Your task to perform on an android device: uninstall "Google Pay: Save, Pay, Manage" Image 0: 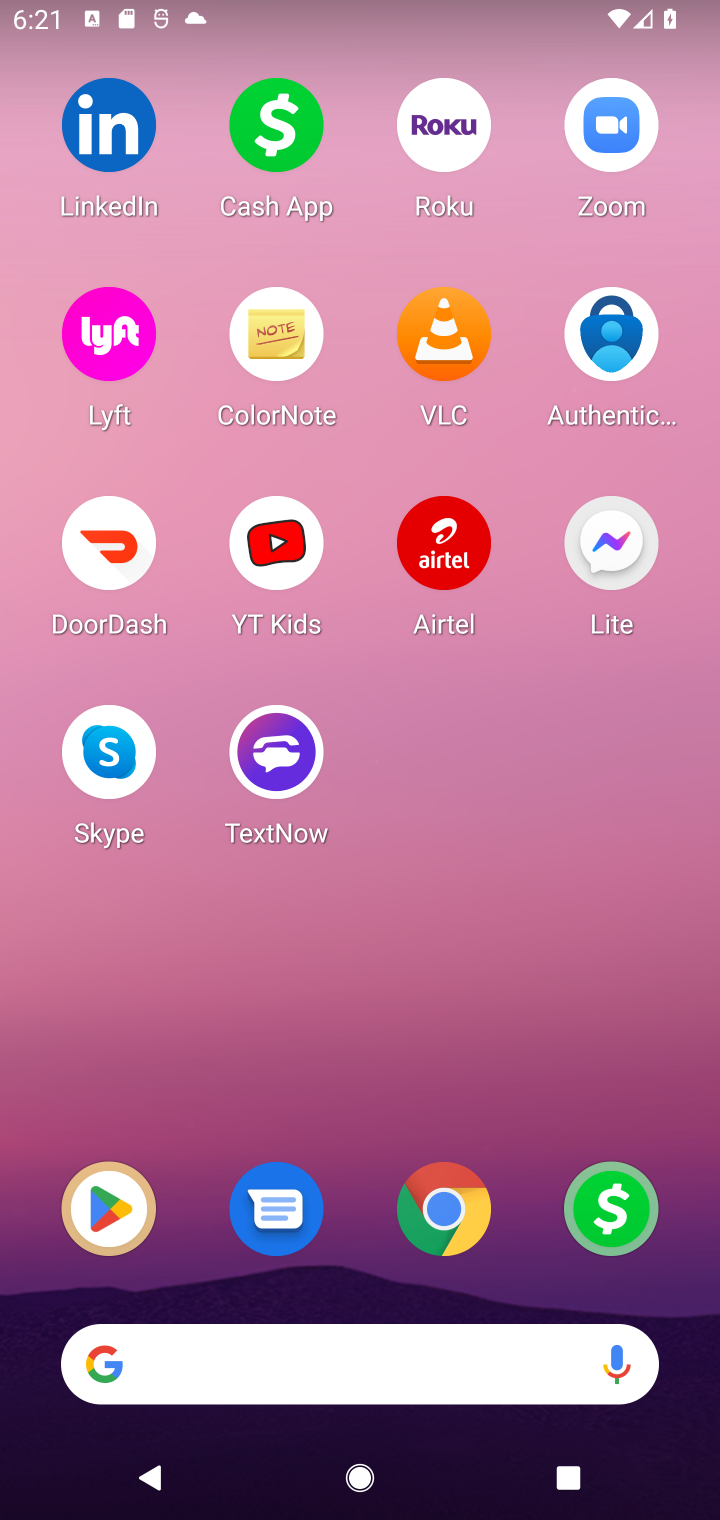
Step 0: click (104, 1188)
Your task to perform on an android device: uninstall "Google Pay: Save, Pay, Manage" Image 1: 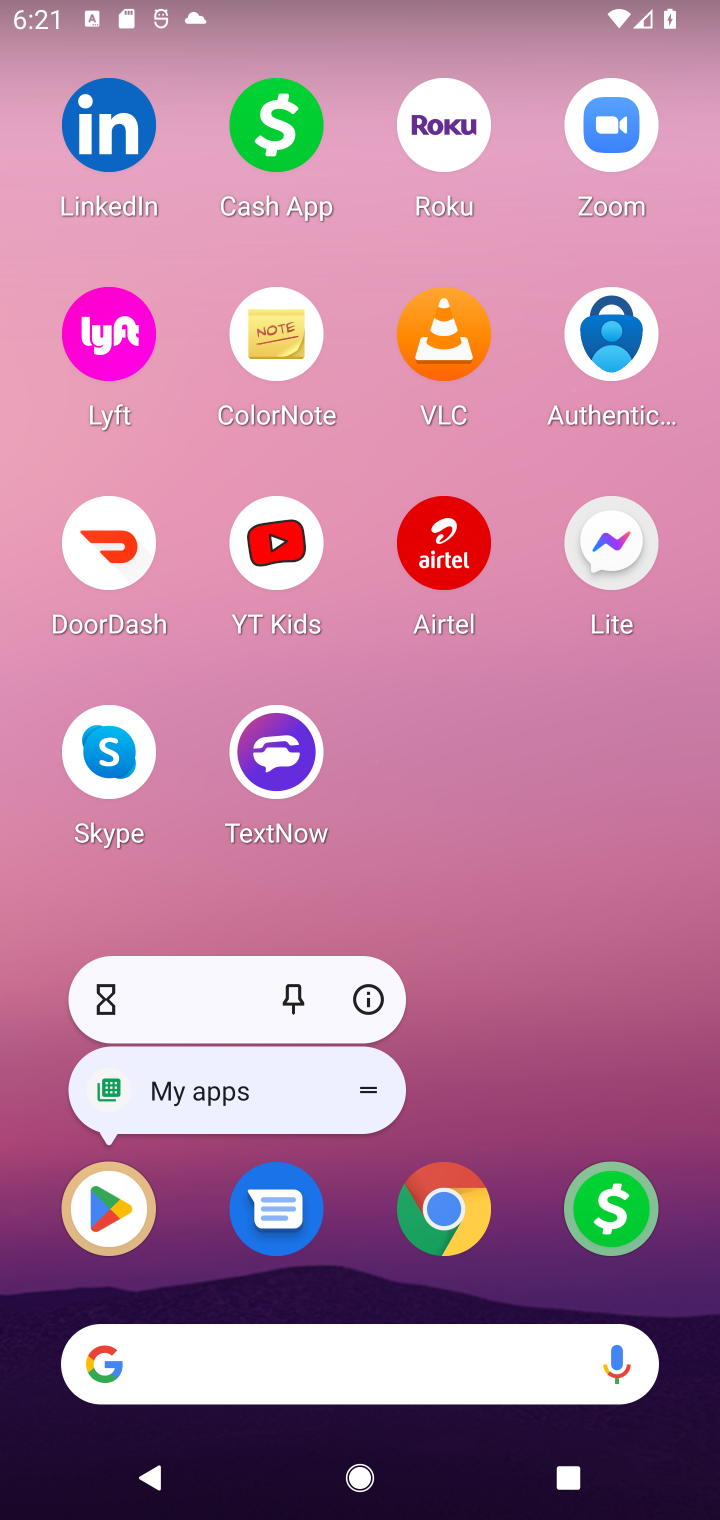
Step 1: click (102, 1221)
Your task to perform on an android device: uninstall "Google Pay: Save, Pay, Manage" Image 2: 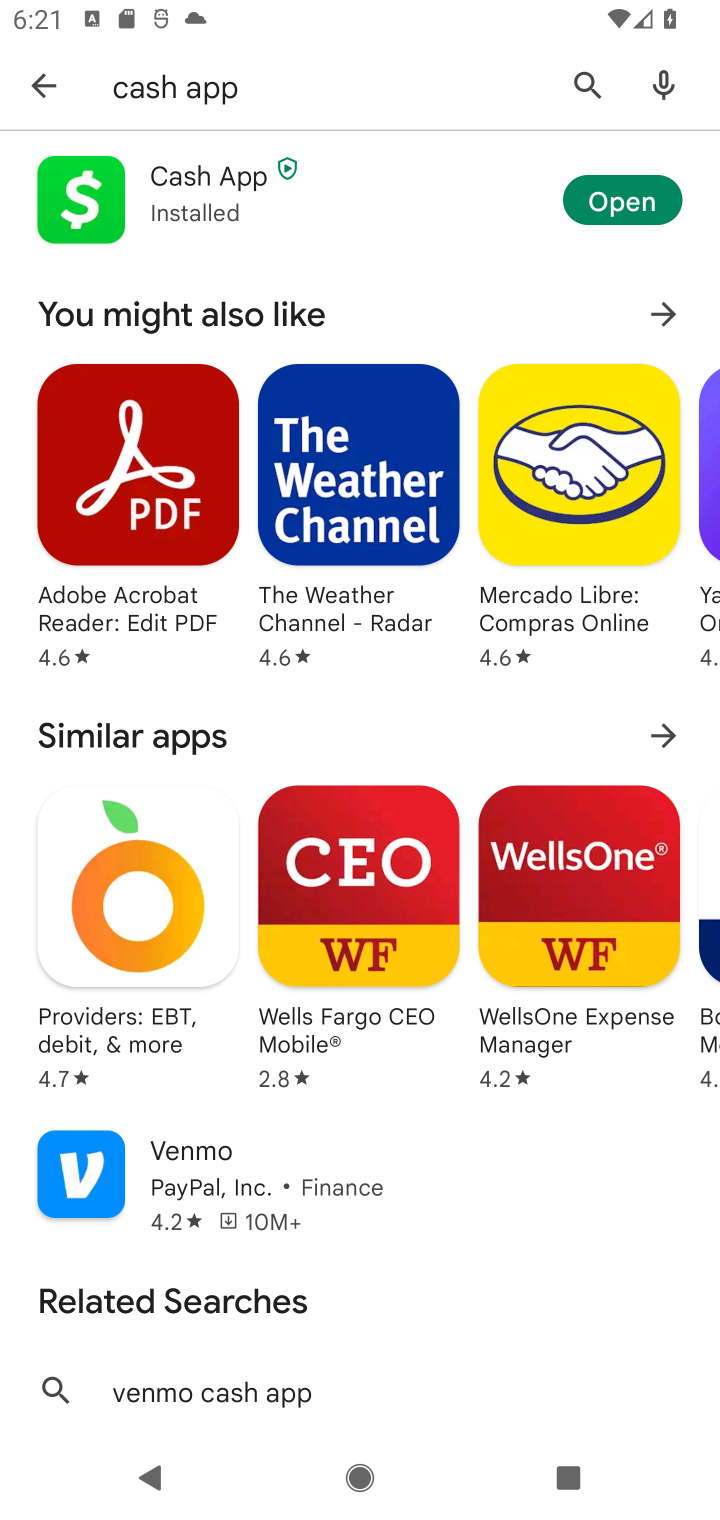
Step 2: click (582, 83)
Your task to perform on an android device: uninstall "Google Pay: Save, Pay, Manage" Image 3: 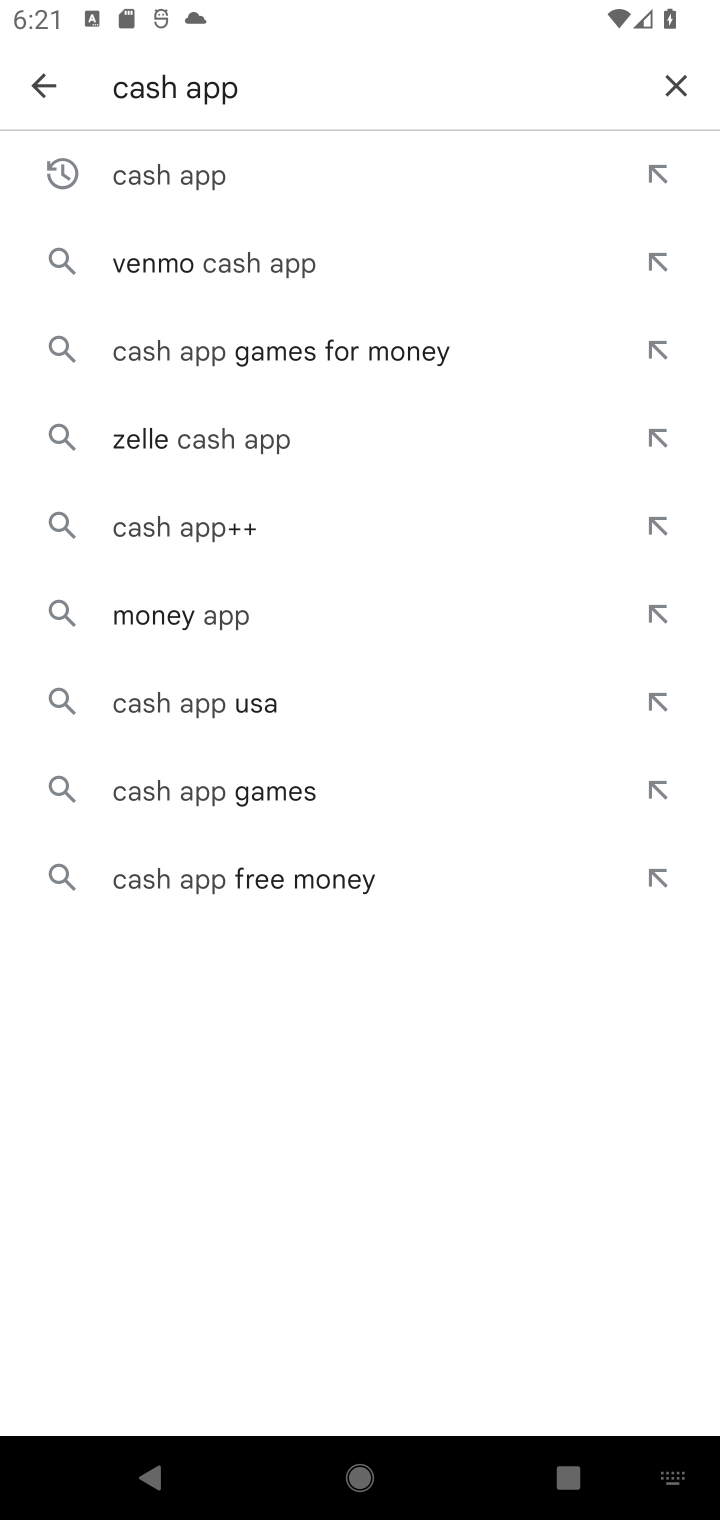
Step 3: click (664, 101)
Your task to perform on an android device: uninstall "Google Pay: Save, Pay, Manage" Image 4: 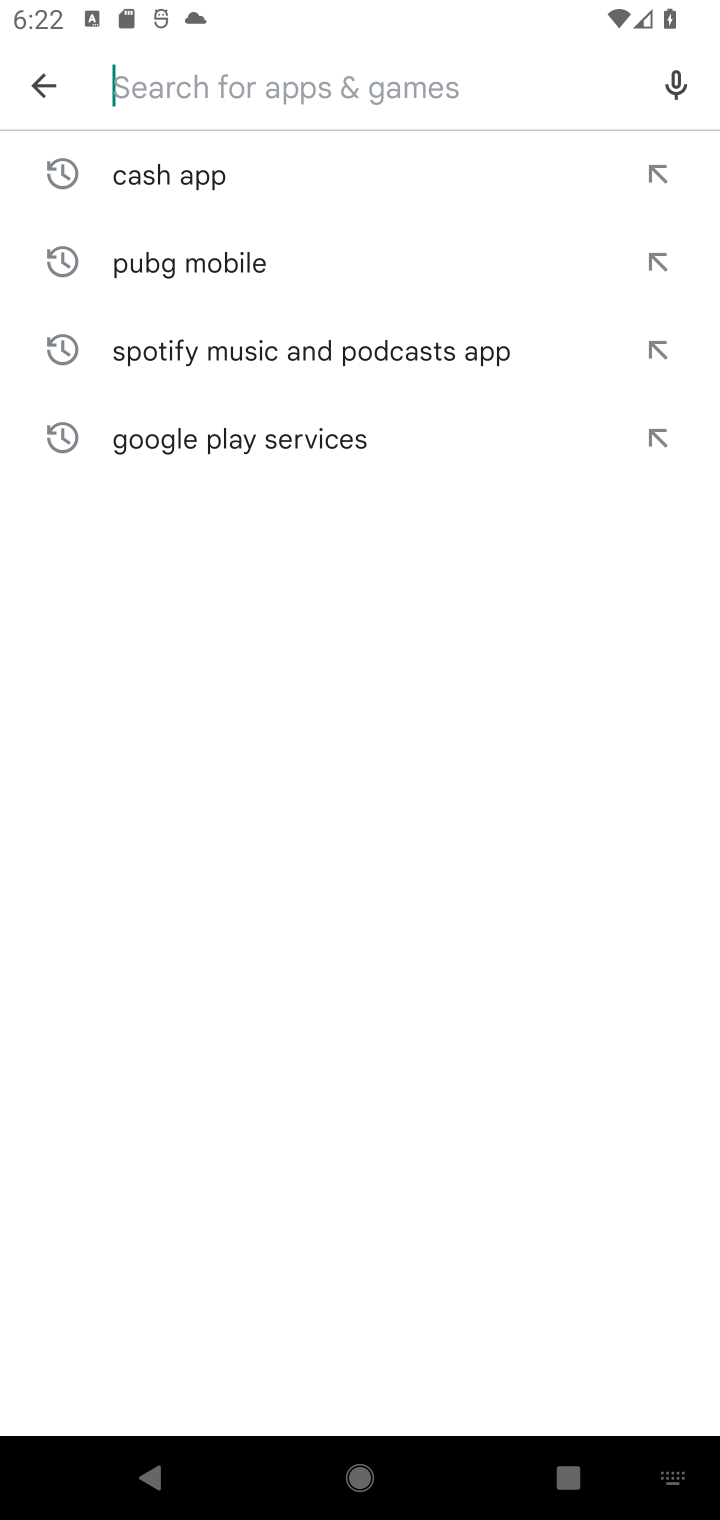
Step 4: type "Google Pay: Save, Pay, Manage"
Your task to perform on an android device: uninstall "Google Pay: Save, Pay, Manage" Image 5: 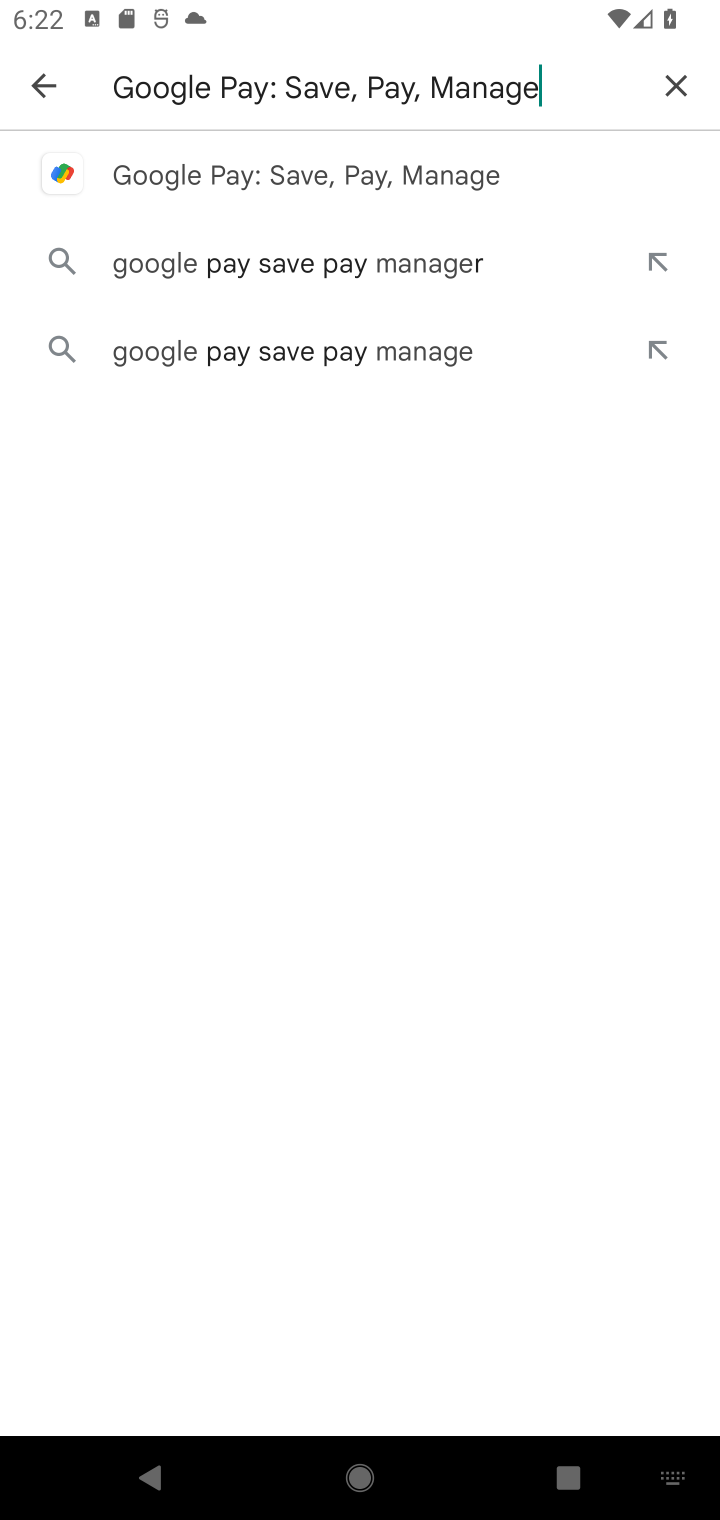
Step 5: click (357, 181)
Your task to perform on an android device: uninstall "Google Pay: Save, Pay, Manage" Image 6: 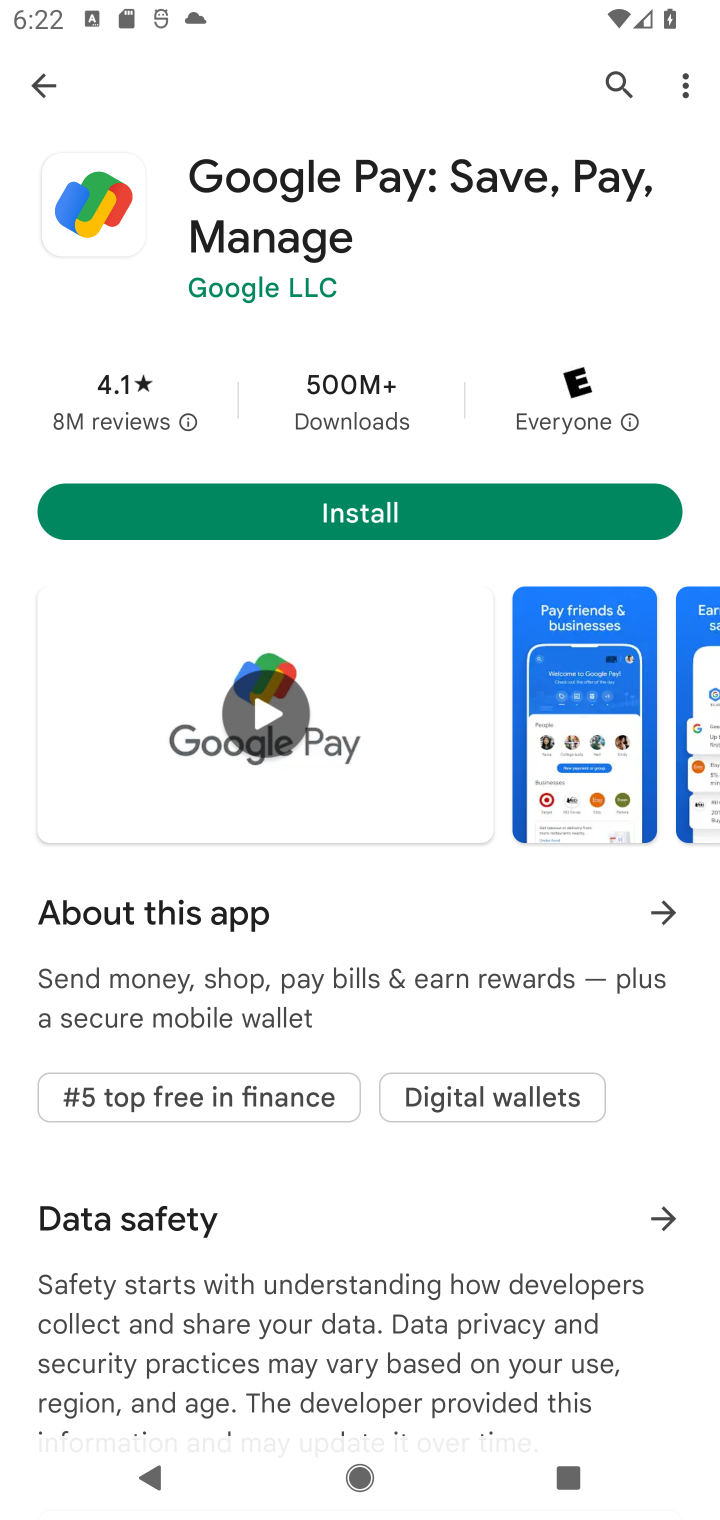
Step 6: task complete